Your task to perform on an android device: toggle javascript in the chrome app Image 0: 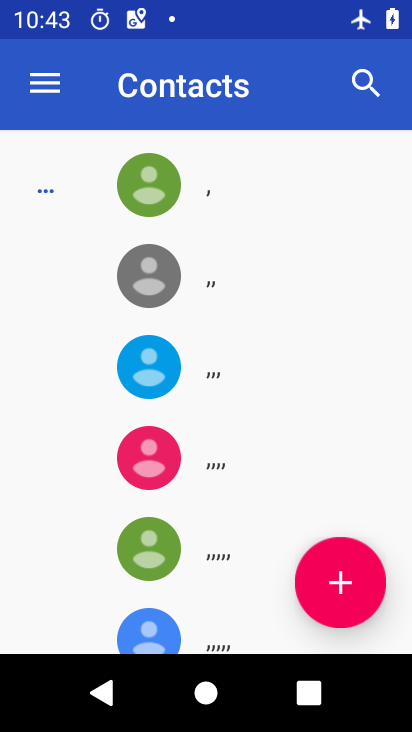
Step 0: press home button
Your task to perform on an android device: toggle javascript in the chrome app Image 1: 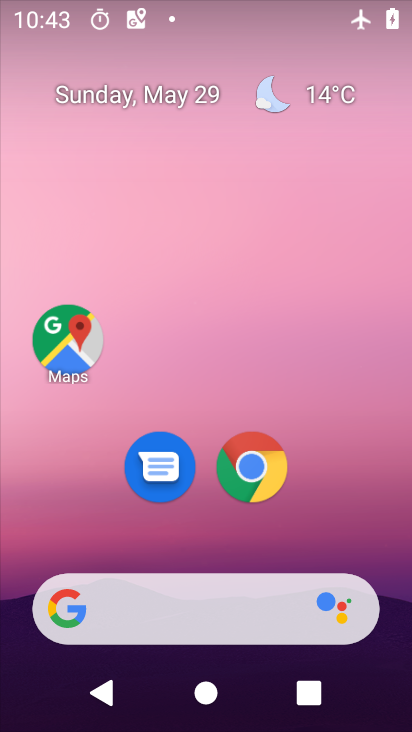
Step 1: click (253, 477)
Your task to perform on an android device: toggle javascript in the chrome app Image 2: 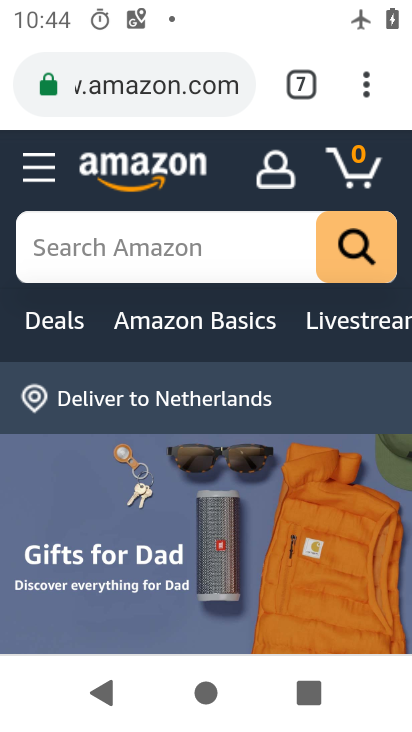
Step 2: drag from (361, 98) to (127, 526)
Your task to perform on an android device: toggle javascript in the chrome app Image 3: 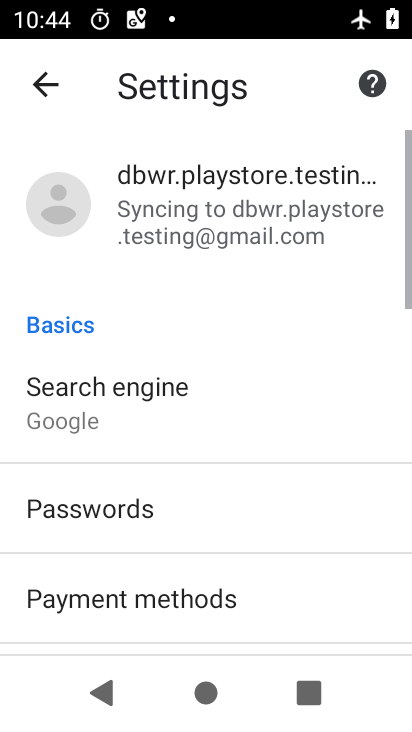
Step 3: drag from (181, 523) to (165, 253)
Your task to perform on an android device: toggle javascript in the chrome app Image 4: 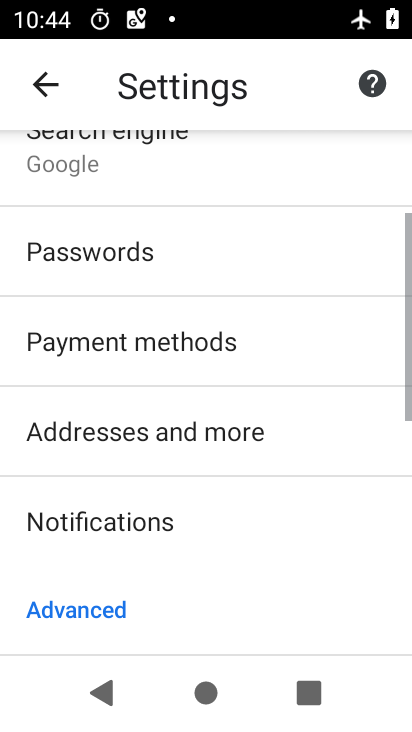
Step 4: drag from (187, 479) to (175, 274)
Your task to perform on an android device: toggle javascript in the chrome app Image 5: 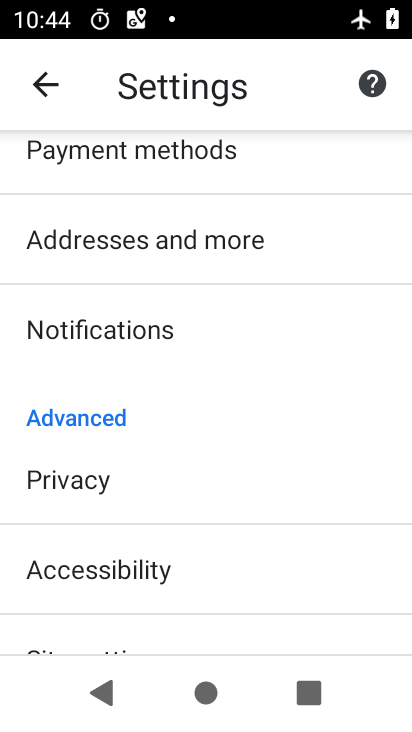
Step 5: drag from (203, 515) to (190, 305)
Your task to perform on an android device: toggle javascript in the chrome app Image 6: 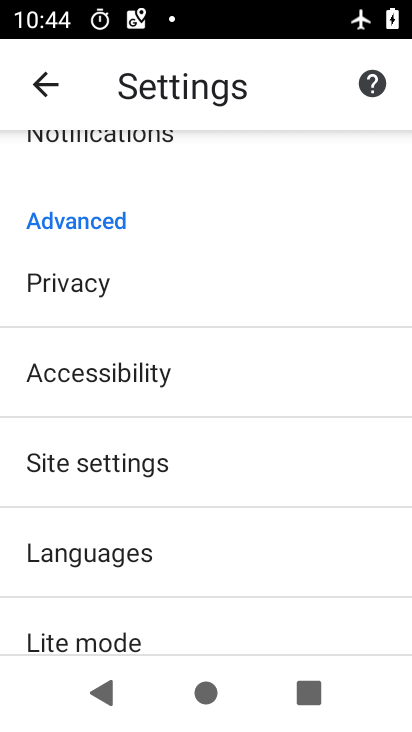
Step 6: click (153, 469)
Your task to perform on an android device: toggle javascript in the chrome app Image 7: 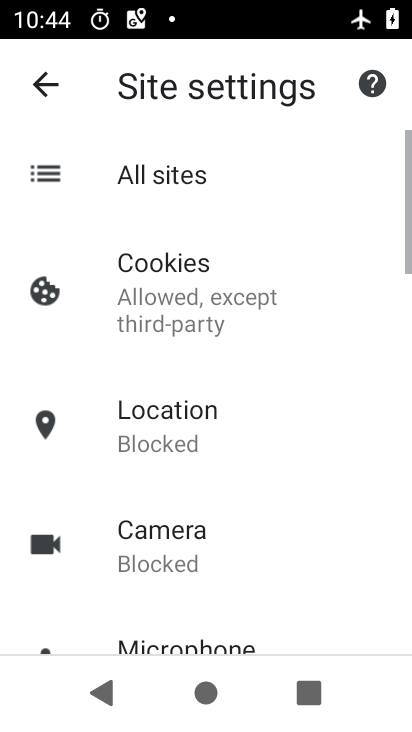
Step 7: drag from (207, 571) to (215, 257)
Your task to perform on an android device: toggle javascript in the chrome app Image 8: 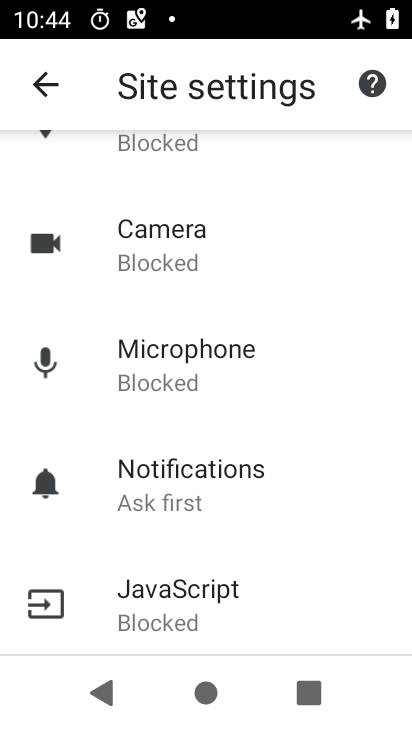
Step 8: click (242, 605)
Your task to perform on an android device: toggle javascript in the chrome app Image 9: 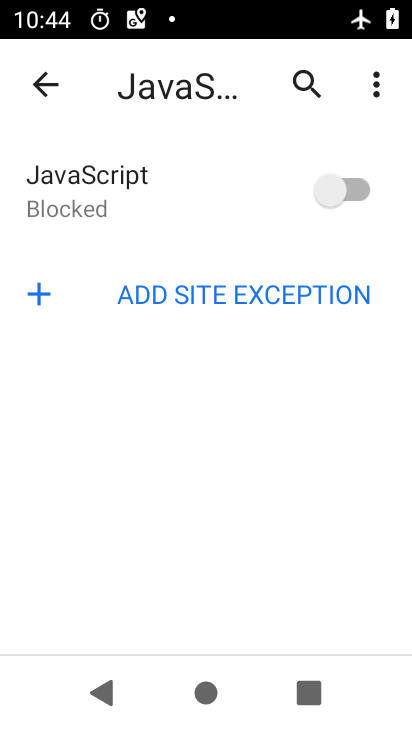
Step 9: click (366, 185)
Your task to perform on an android device: toggle javascript in the chrome app Image 10: 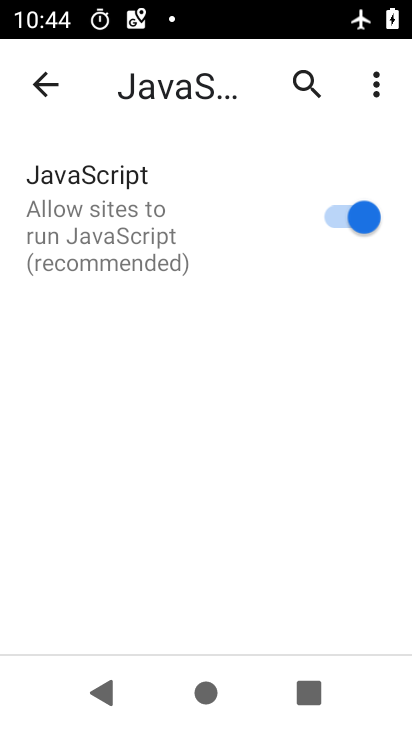
Step 10: task complete